Your task to perform on an android device: change notification settings in the gmail app Image 0: 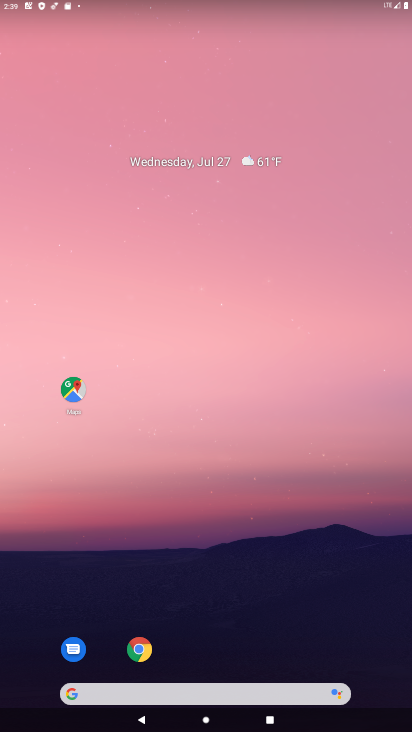
Step 0: drag from (202, 529) to (212, 122)
Your task to perform on an android device: change notification settings in the gmail app Image 1: 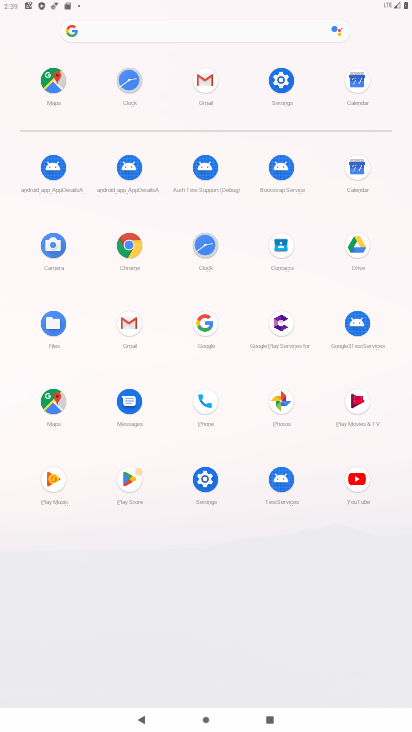
Step 1: click (203, 77)
Your task to perform on an android device: change notification settings in the gmail app Image 2: 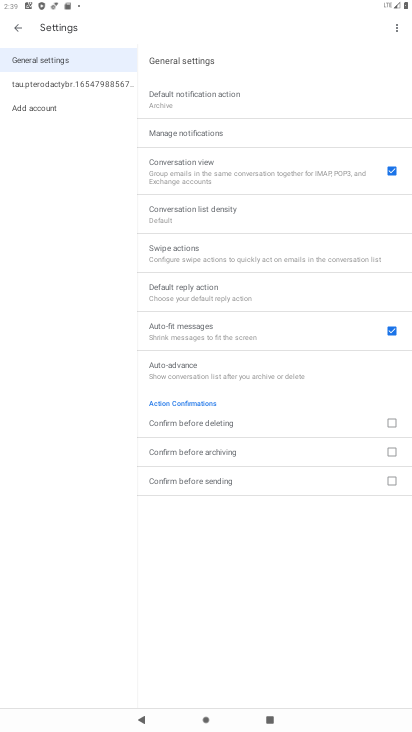
Step 2: click (88, 86)
Your task to perform on an android device: change notification settings in the gmail app Image 3: 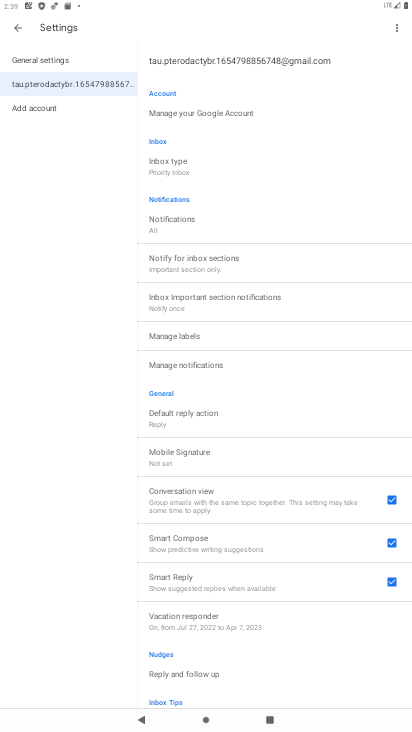
Step 3: click (188, 366)
Your task to perform on an android device: change notification settings in the gmail app Image 4: 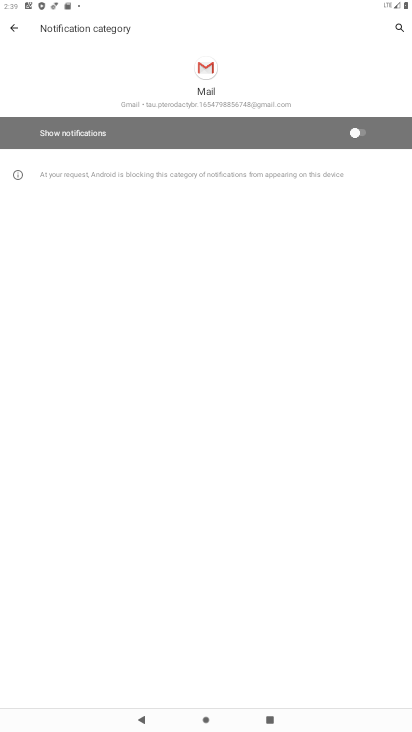
Step 4: click (364, 134)
Your task to perform on an android device: change notification settings in the gmail app Image 5: 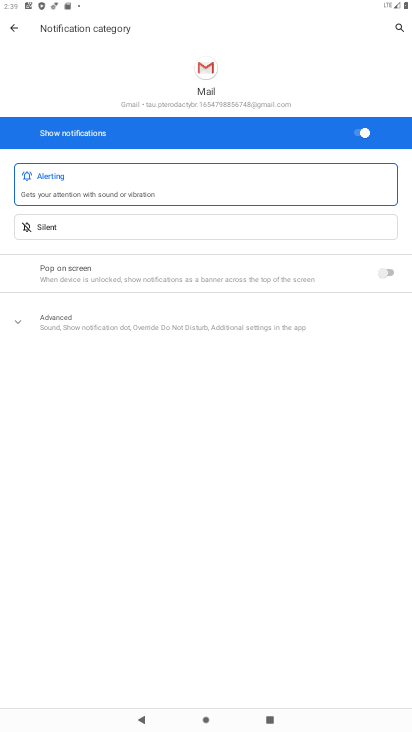
Step 5: task complete